Your task to perform on an android device: change the clock display to analog Image 0: 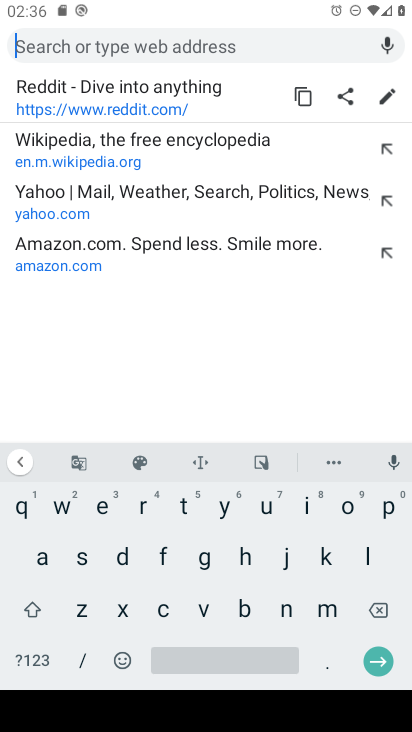
Step 0: press home button
Your task to perform on an android device: change the clock display to analog Image 1: 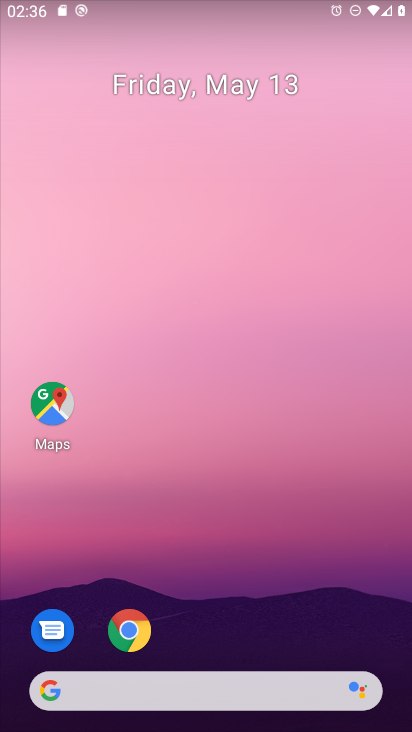
Step 1: drag from (223, 702) to (165, 281)
Your task to perform on an android device: change the clock display to analog Image 2: 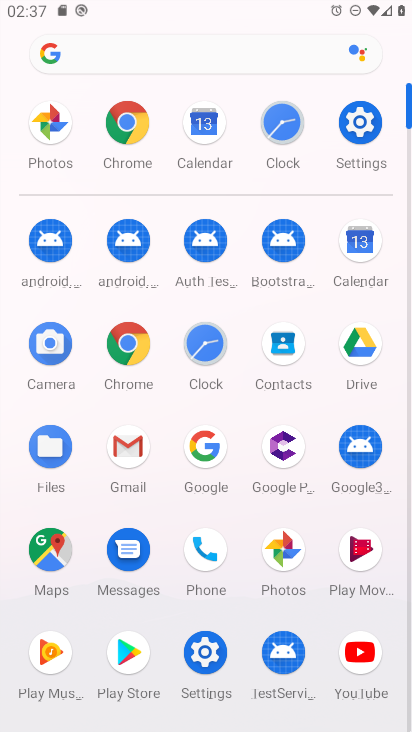
Step 2: click (208, 343)
Your task to perform on an android device: change the clock display to analog Image 3: 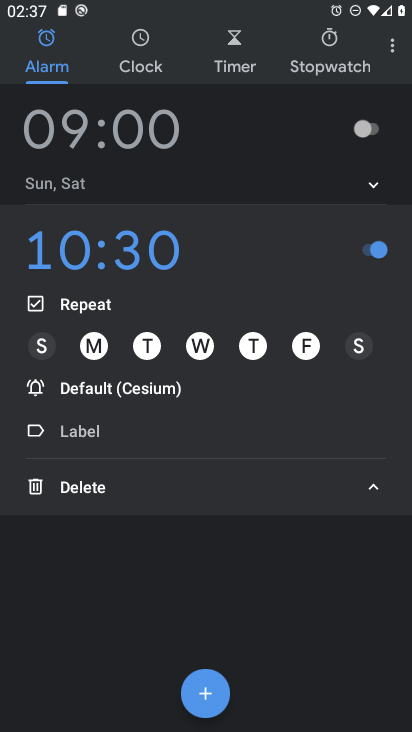
Step 3: click (381, 66)
Your task to perform on an android device: change the clock display to analog Image 4: 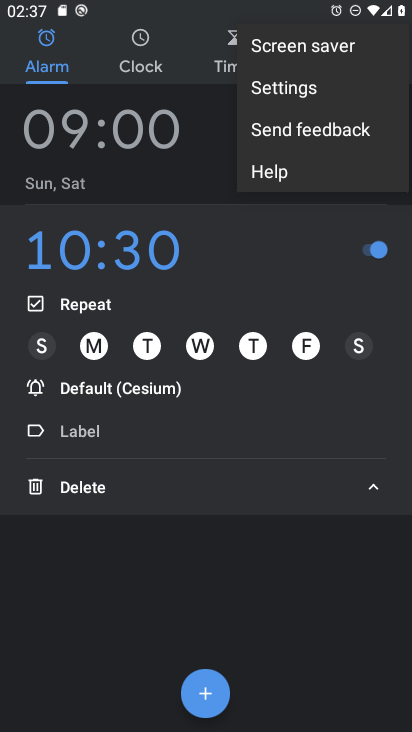
Step 4: click (325, 85)
Your task to perform on an android device: change the clock display to analog Image 5: 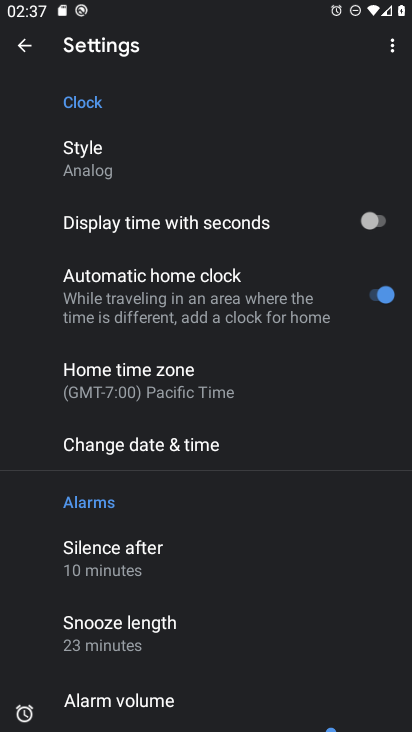
Step 5: click (74, 166)
Your task to perform on an android device: change the clock display to analog Image 6: 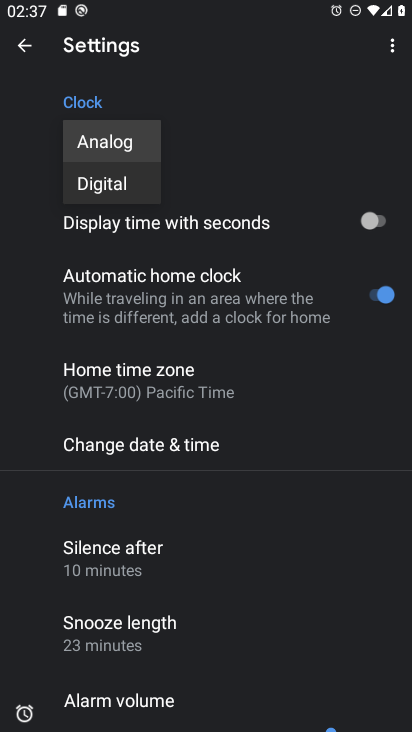
Step 6: click (98, 144)
Your task to perform on an android device: change the clock display to analog Image 7: 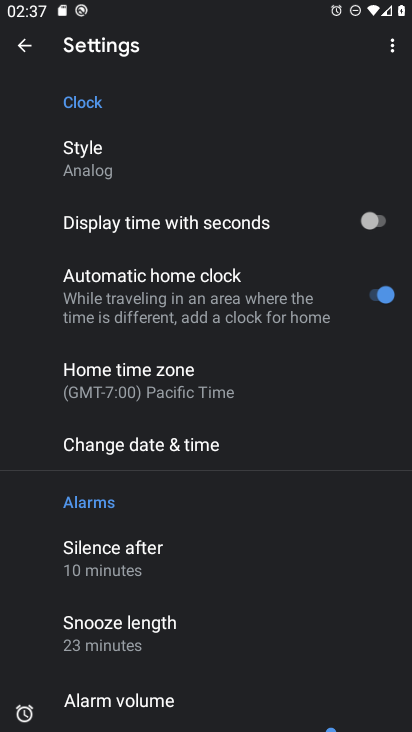
Step 7: task complete